Your task to perform on an android device: What's on my calendar tomorrow? Image 0: 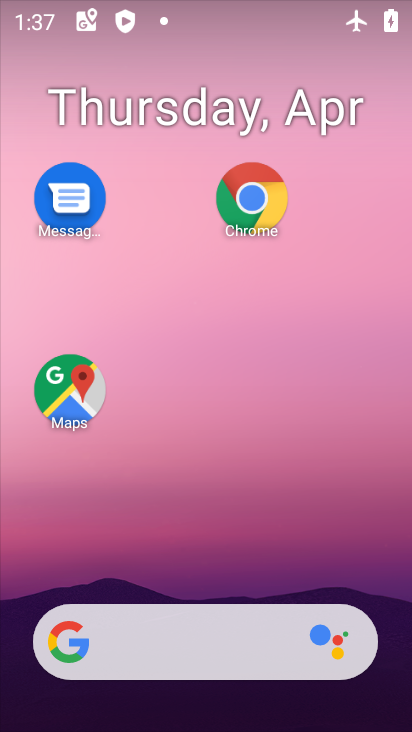
Step 0: drag from (204, 595) to (145, 26)
Your task to perform on an android device: What's on my calendar tomorrow? Image 1: 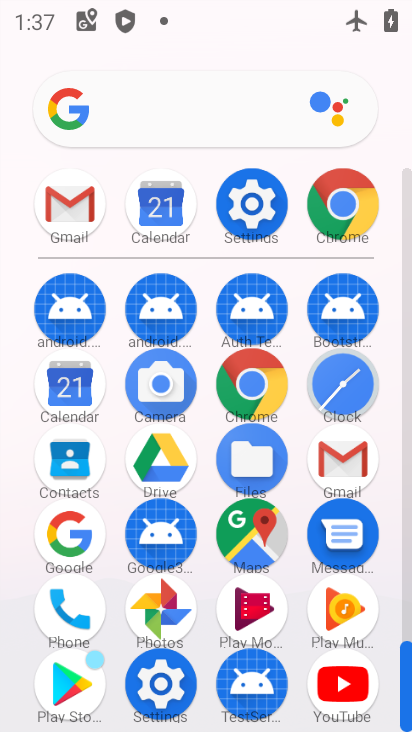
Step 1: click (66, 388)
Your task to perform on an android device: What's on my calendar tomorrow? Image 2: 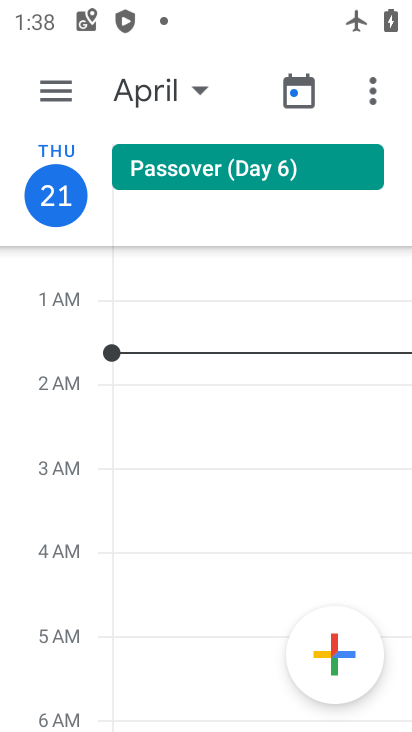
Step 2: click (45, 96)
Your task to perform on an android device: What's on my calendar tomorrow? Image 3: 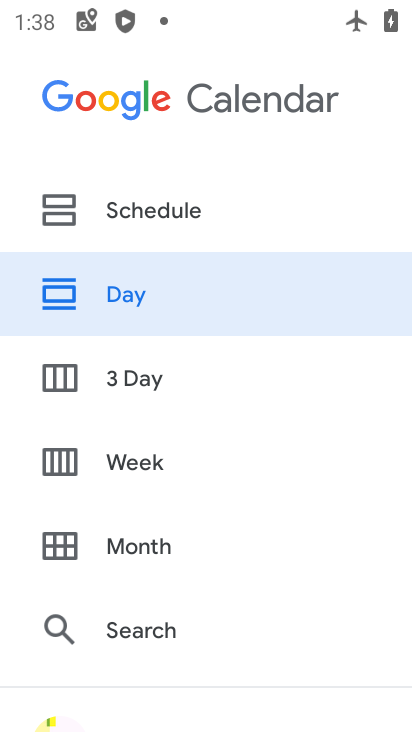
Step 3: click (151, 376)
Your task to perform on an android device: What's on my calendar tomorrow? Image 4: 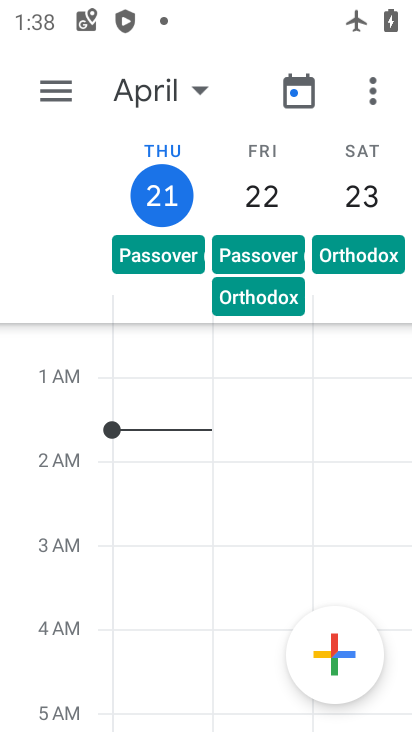
Step 4: click (241, 194)
Your task to perform on an android device: What's on my calendar tomorrow? Image 5: 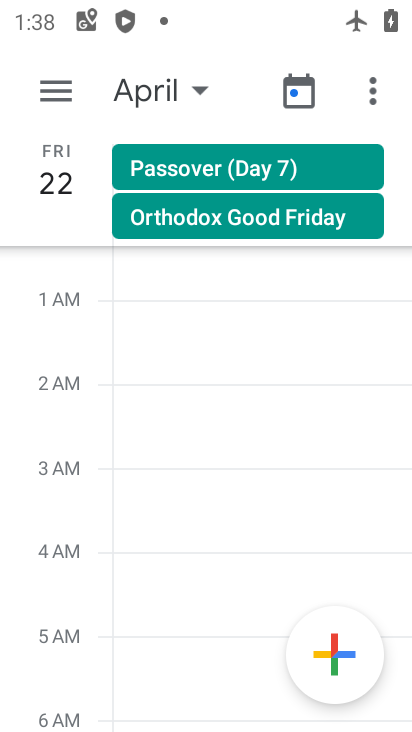
Step 5: task complete